Your task to perform on an android device: Clear the shopping cart on bestbuy. Search for "corsair k70" on bestbuy, select the first entry, and add it to the cart. Image 0: 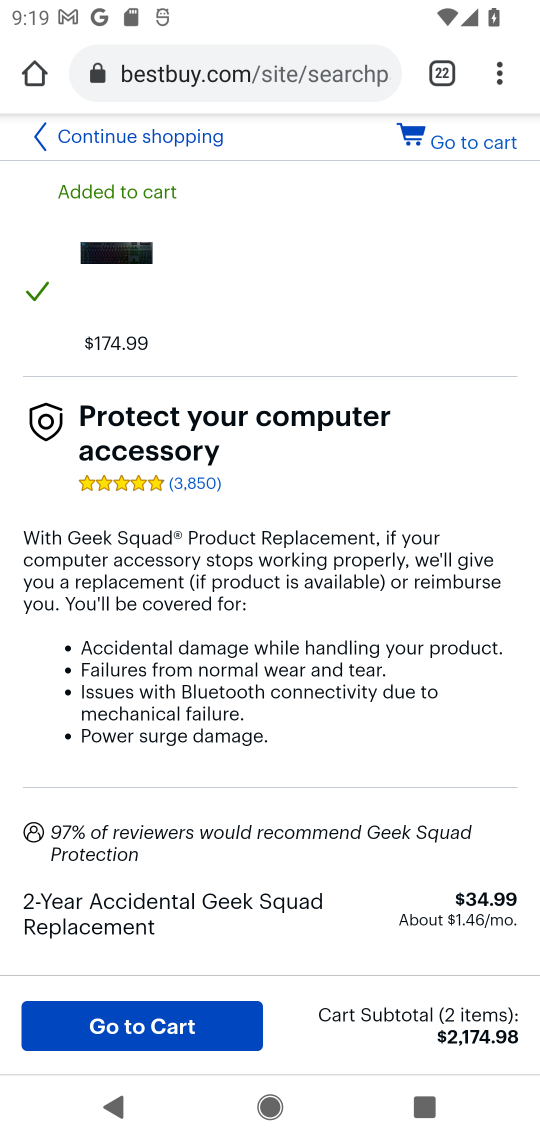
Step 0: press home button
Your task to perform on an android device: Clear the shopping cart on bestbuy. Search for "corsair k70" on bestbuy, select the first entry, and add it to the cart. Image 1: 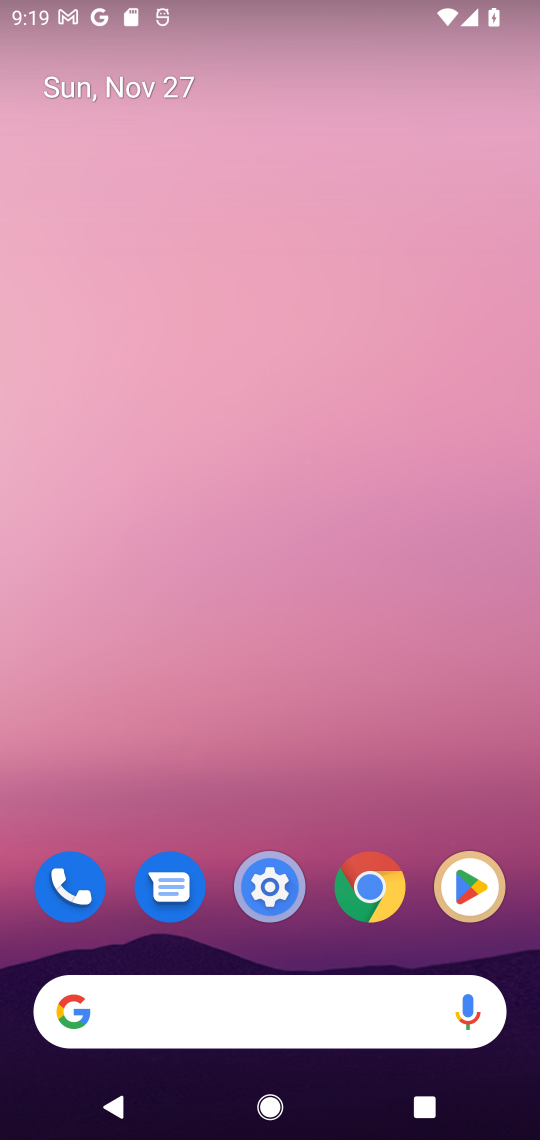
Step 1: click (366, 1009)
Your task to perform on an android device: Clear the shopping cart on bestbuy. Search for "corsair k70" on bestbuy, select the first entry, and add it to the cart. Image 2: 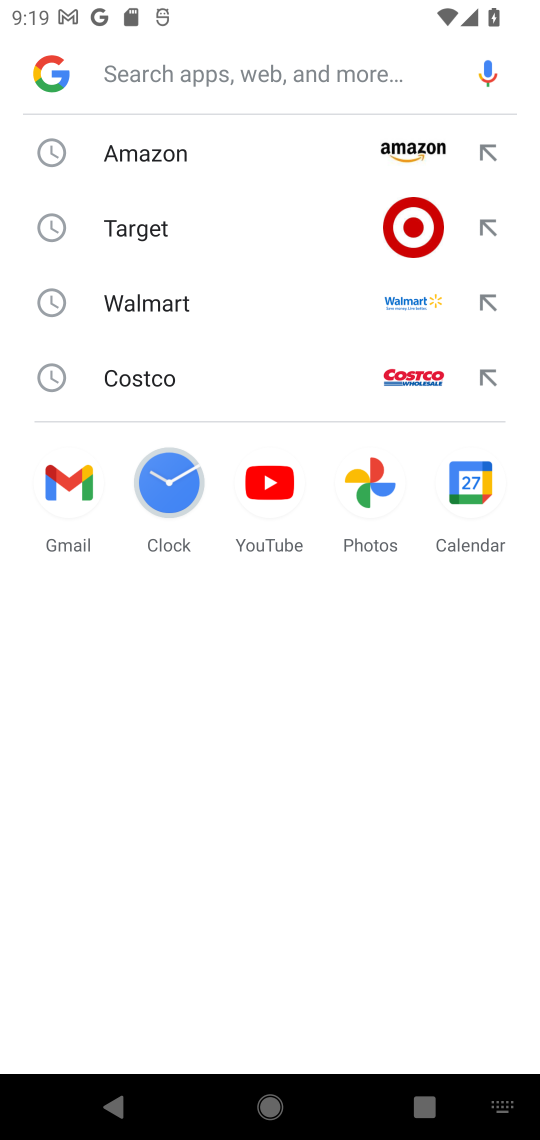
Step 2: type "bestbuy"
Your task to perform on an android device: Clear the shopping cart on bestbuy. Search for "corsair k70" on bestbuy, select the first entry, and add it to the cart. Image 3: 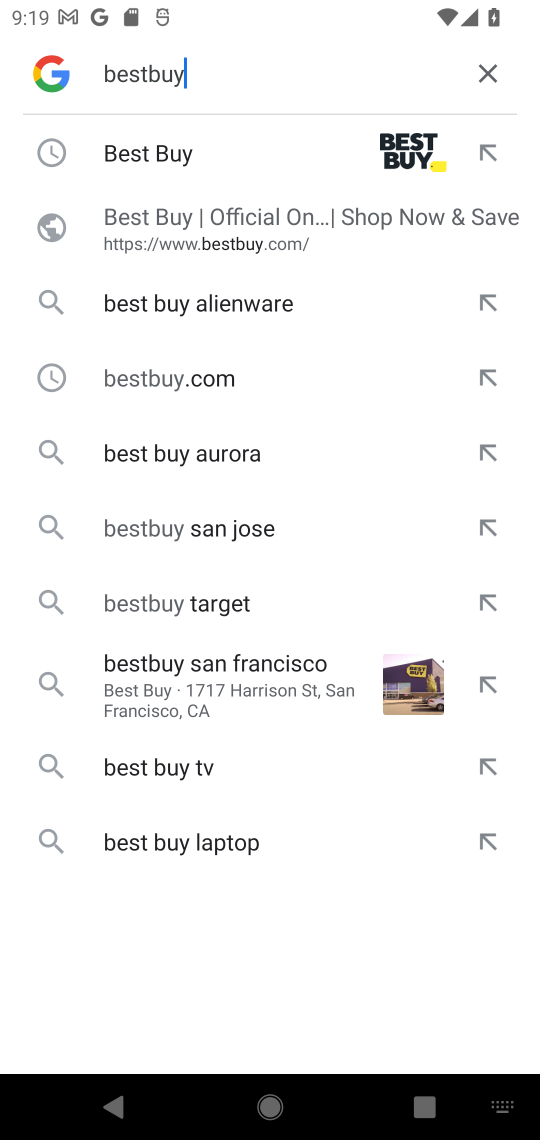
Step 3: click (144, 170)
Your task to perform on an android device: Clear the shopping cart on bestbuy. Search for "corsair k70" on bestbuy, select the first entry, and add it to the cart. Image 4: 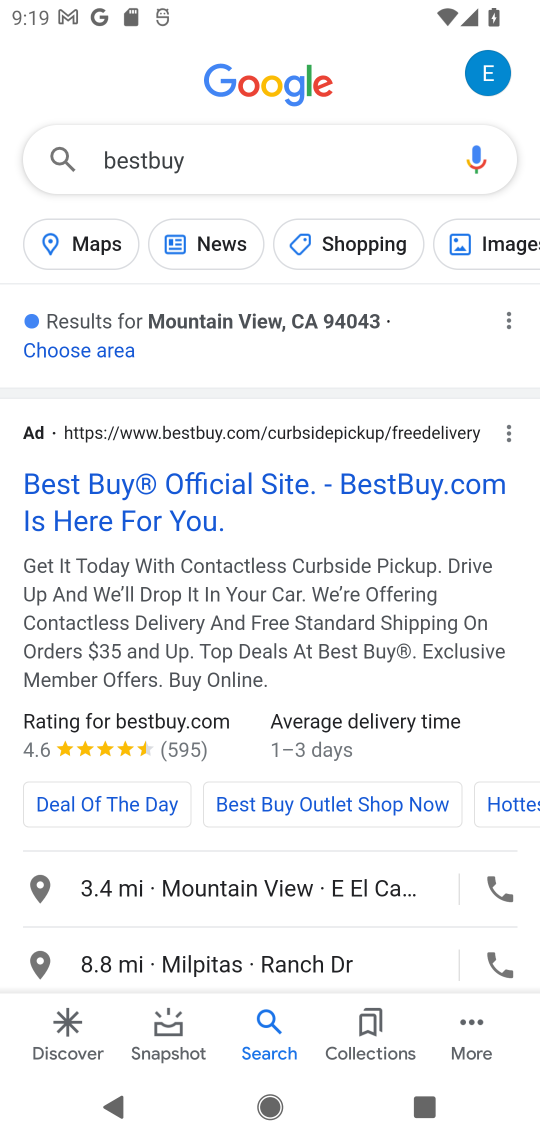
Step 4: click (183, 492)
Your task to perform on an android device: Clear the shopping cart on bestbuy. Search for "corsair k70" on bestbuy, select the first entry, and add it to the cart. Image 5: 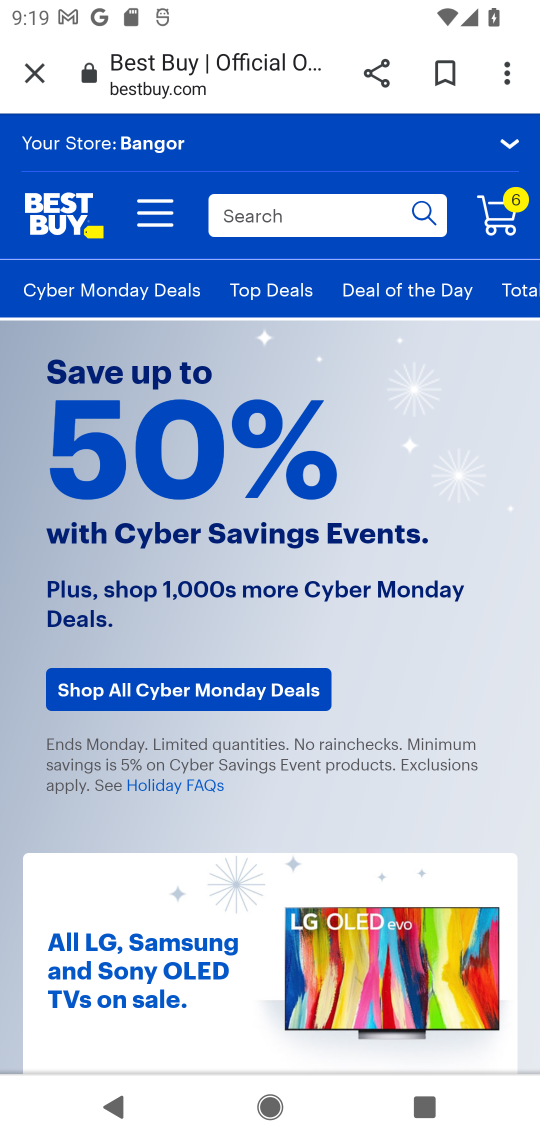
Step 5: click (235, 221)
Your task to perform on an android device: Clear the shopping cart on bestbuy. Search for "corsair k70" on bestbuy, select the first entry, and add it to the cart. Image 6: 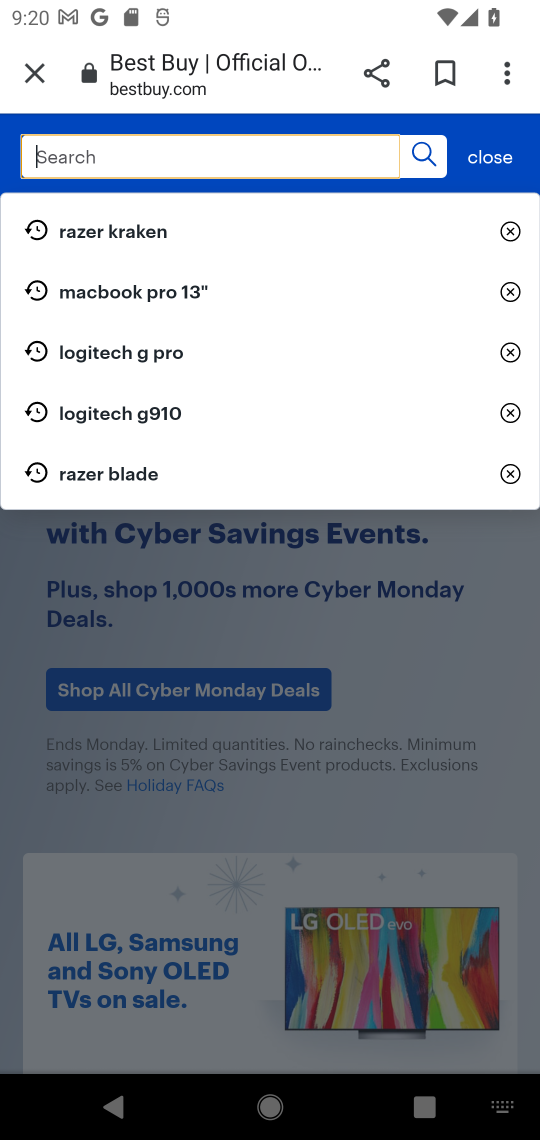
Step 6: type "corsair"
Your task to perform on an android device: Clear the shopping cart on bestbuy. Search for "corsair k70" on bestbuy, select the first entry, and add it to the cart. Image 7: 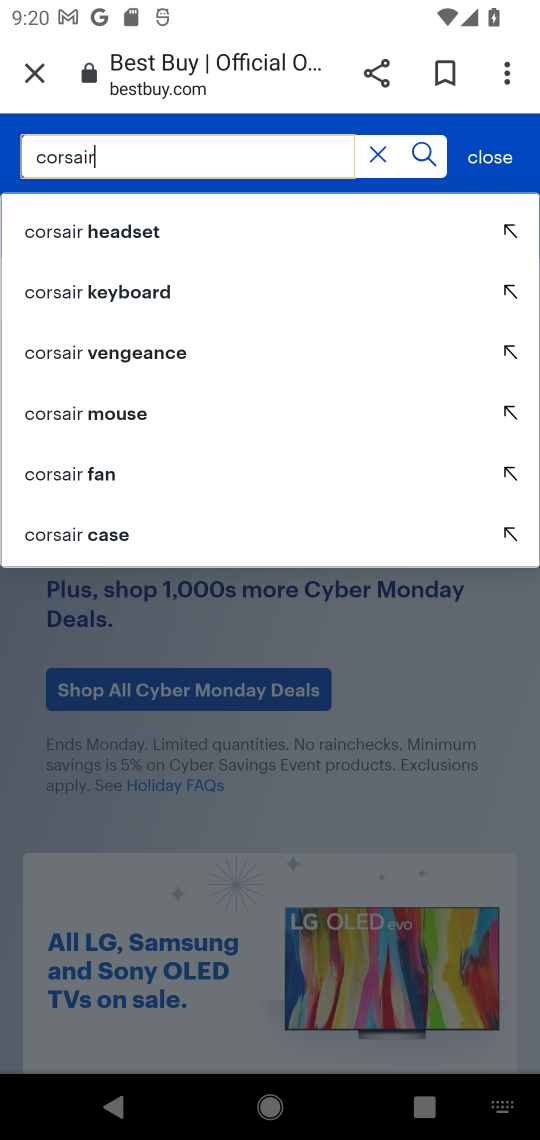
Step 7: type " k70"
Your task to perform on an android device: Clear the shopping cart on bestbuy. Search for "corsair k70" on bestbuy, select the first entry, and add it to the cart. Image 8: 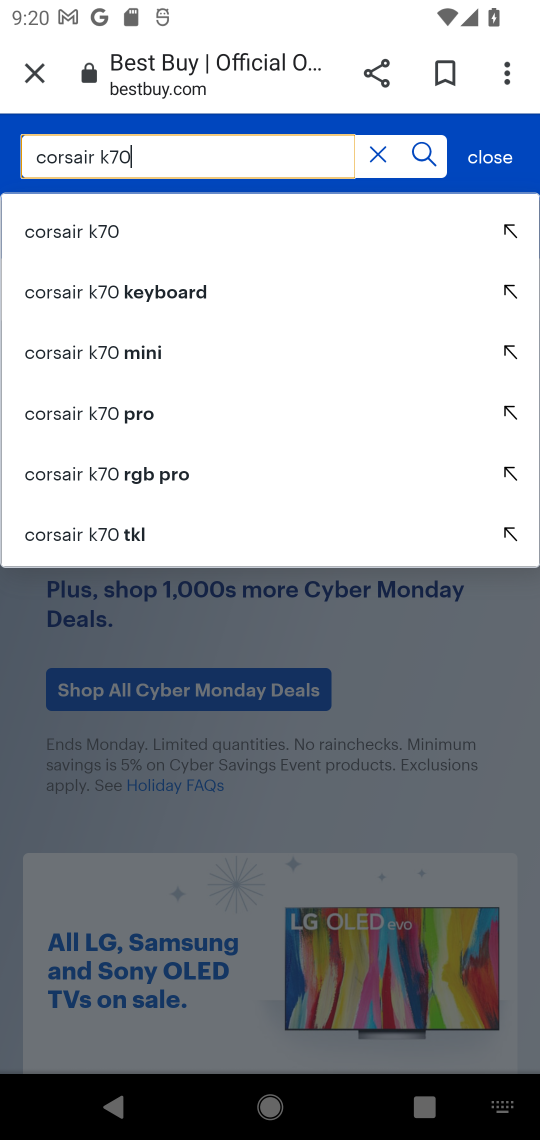
Step 8: click (202, 229)
Your task to perform on an android device: Clear the shopping cart on bestbuy. Search for "corsair k70" on bestbuy, select the first entry, and add it to the cart. Image 9: 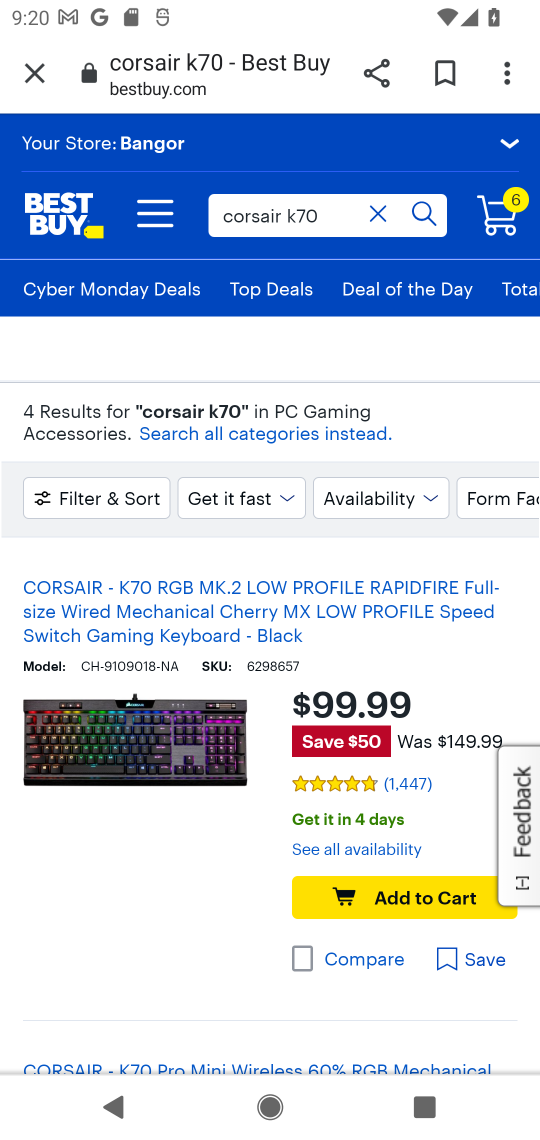
Step 9: click (329, 901)
Your task to perform on an android device: Clear the shopping cart on bestbuy. Search for "corsair k70" on bestbuy, select the first entry, and add it to the cart. Image 10: 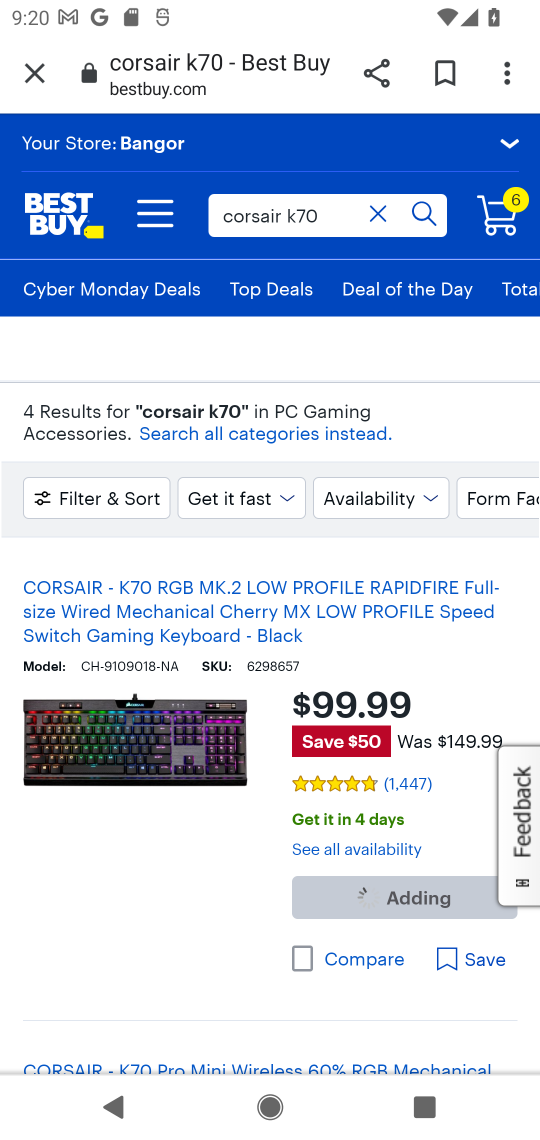
Step 10: task complete